Your task to perform on an android device: install app "Messenger Lite" Image 0: 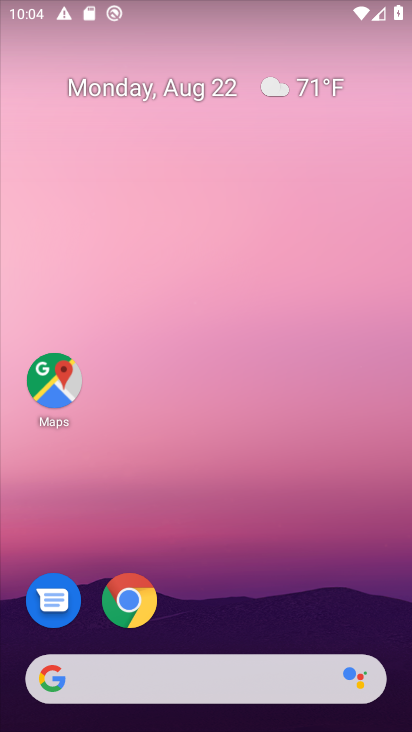
Step 0: drag from (253, 523) to (244, 200)
Your task to perform on an android device: install app "Messenger Lite" Image 1: 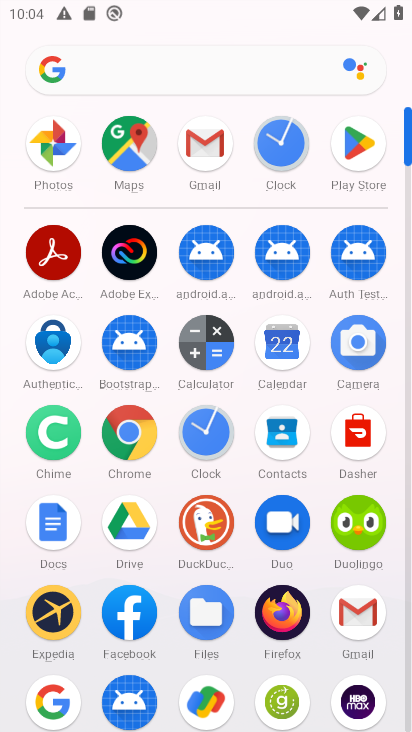
Step 1: click (366, 160)
Your task to perform on an android device: install app "Messenger Lite" Image 2: 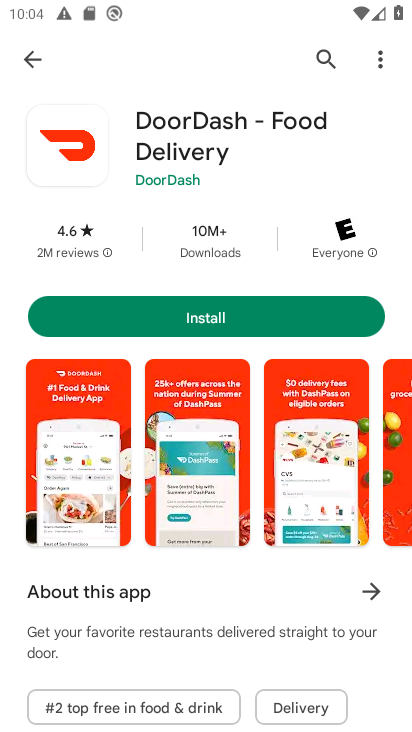
Step 2: click (324, 62)
Your task to perform on an android device: install app "Messenger Lite" Image 3: 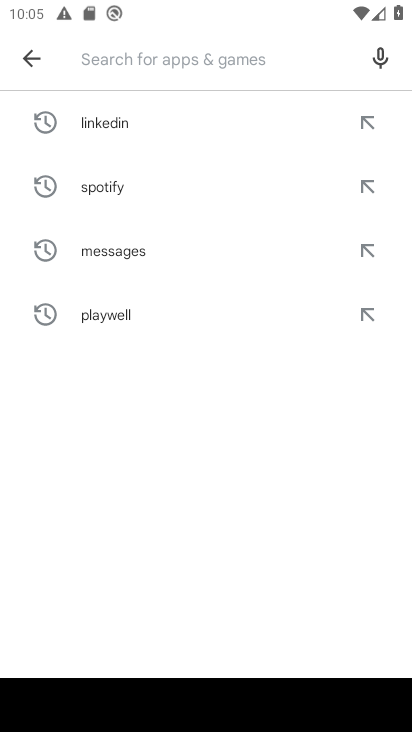
Step 3: type "Messenger Lite"
Your task to perform on an android device: install app "Messenger Lite" Image 4: 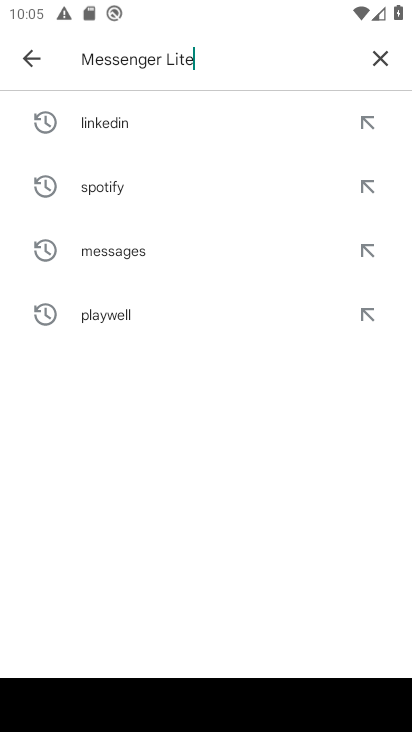
Step 4: type ""
Your task to perform on an android device: install app "Messenger Lite" Image 5: 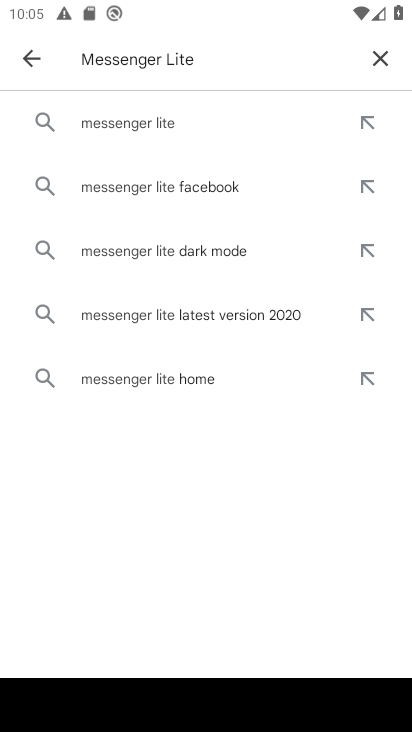
Step 5: click (152, 122)
Your task to perform on an android device: install app "Messenger Lite" Image 6: 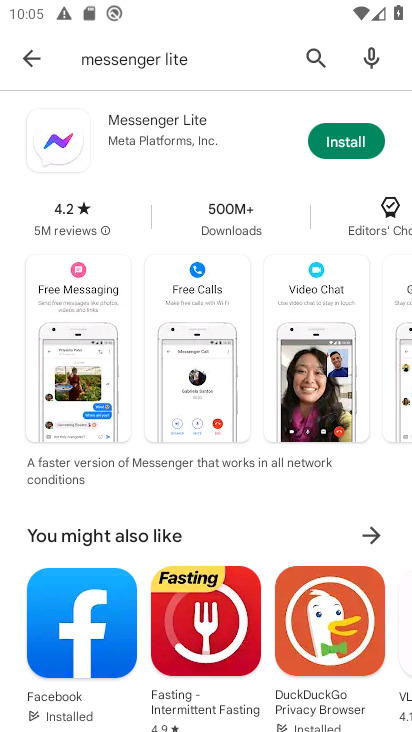
Step 6: click (344, 139)
Your task to perform on an android device: install app "Messenger Lite" Image 7: 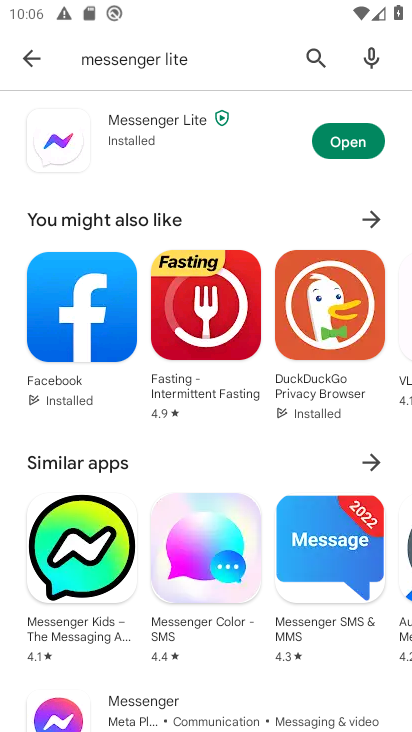
Step 7: task complete